Your task to perform on an android device: Go to display settings Image 0: 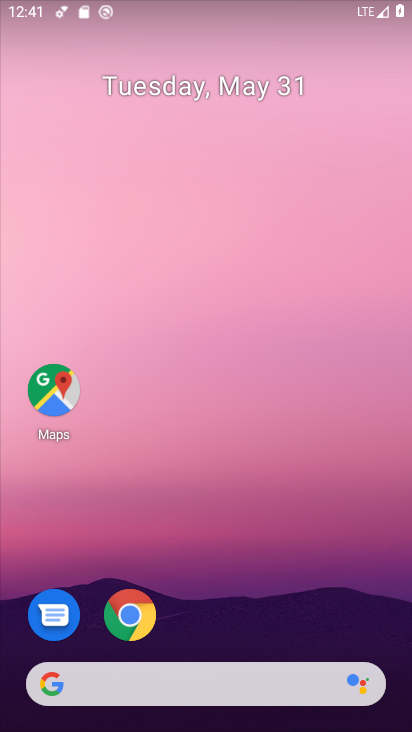
Step 0: drag from (204, 639) to (266, 186)
Your task to perform on an android device: Go to display settings Image 1: 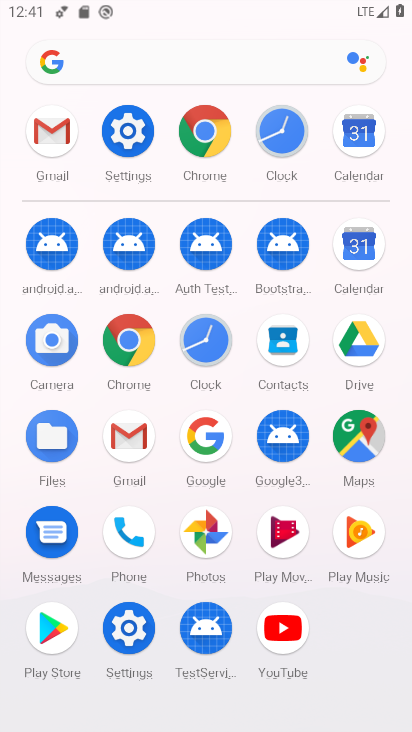
Step 1: click (134, 164)
Your task to perform on an android device: Go to display settings Image 2: 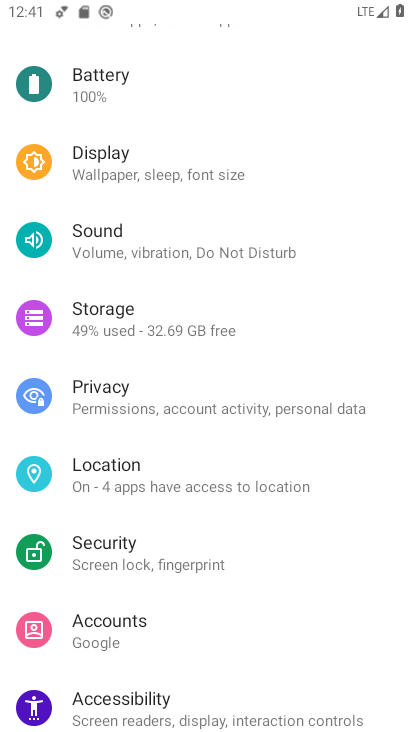
Step 2: click (150, 169)
Your task to perform on an android device: Go to display settings Image 3: 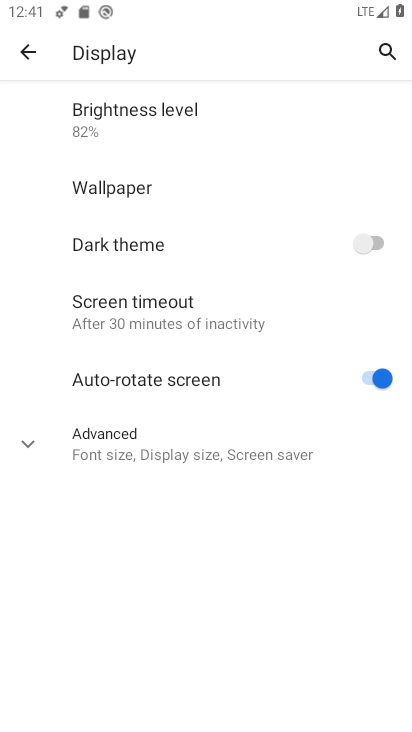
Step 3: task complete